Your task to perform on an android device: manage bookmarks in the chrome app Image 0: 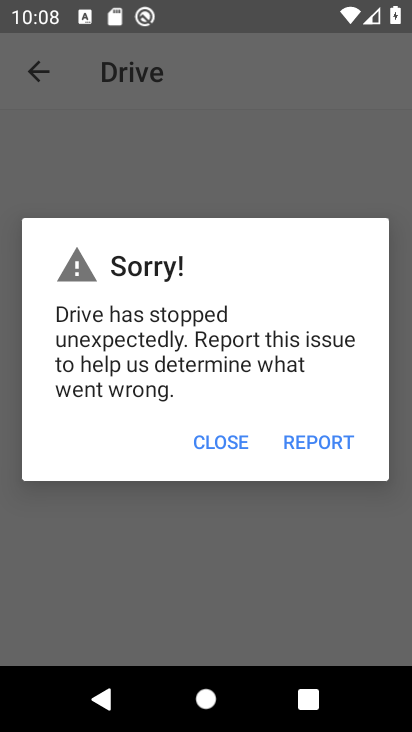
Step 0: press home button
Your task to perform on an android device: manage bookmarks in the chrome app Image 1: 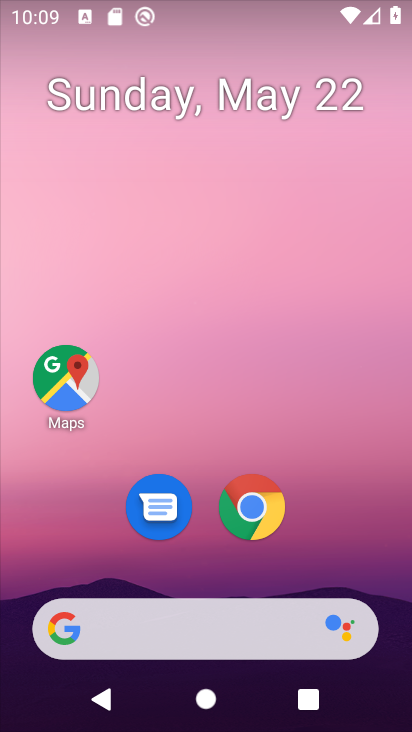
Step 1: click (265, 496)
Your task to perform on an android device: manage bookmarks in the chrome app Image 2: 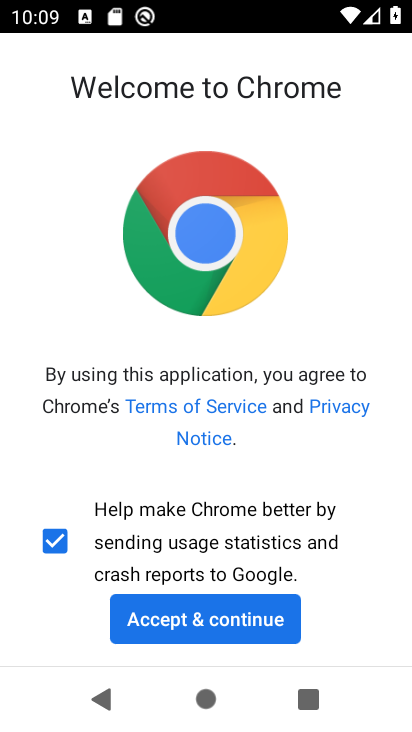
Step 2: click (160, 614)
Your task to perform on an android device: manage bookmarks in the chrome app Image 3: 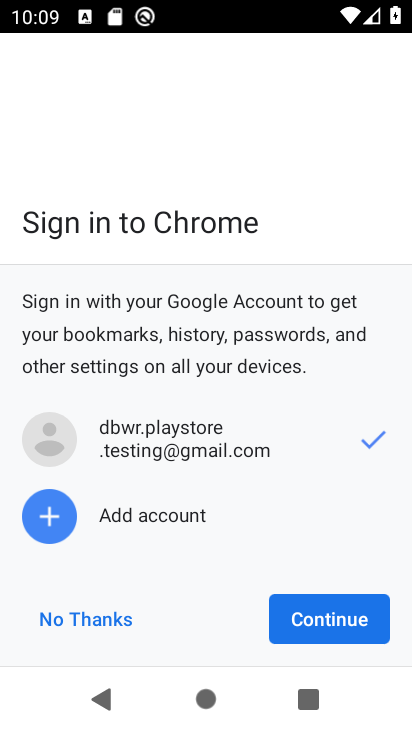
Step 3: click (327, 636)
Your task to perform on an android device: manage bookmarks in the chrome app Image 4: 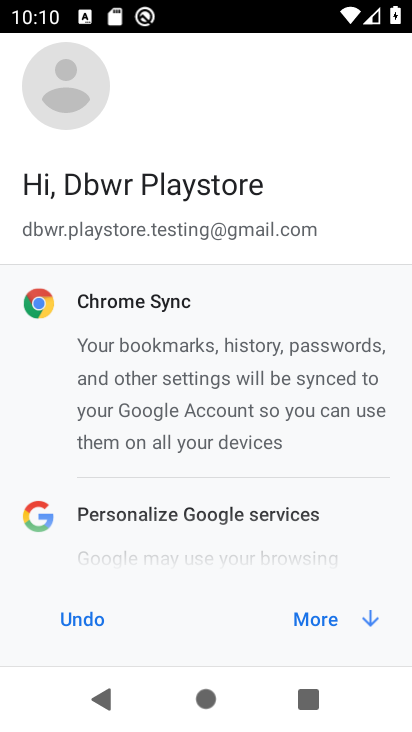
Step 4: click (319, 621)
Your task to perform on an android device: manage bookmarks in the chrome app Image 5: 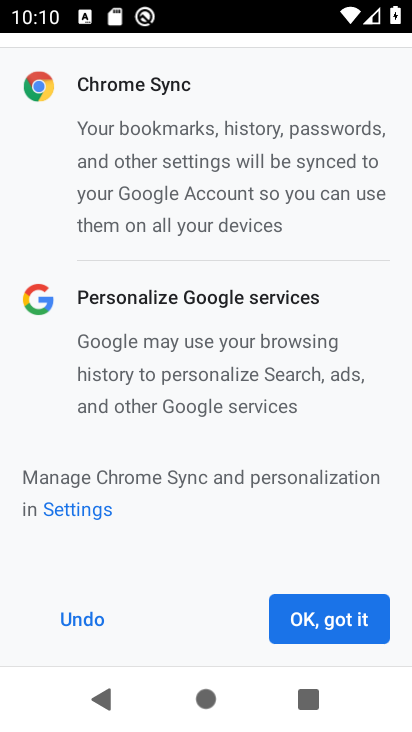
Step 5: click (319, 621)
Your task to perform on an android device: manage bookmarks in the chrome app Image 6: 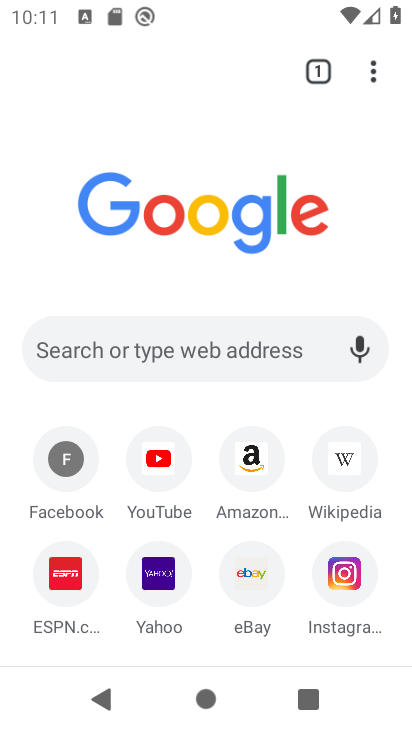
Step 6: click (365, 62)
Your task to perform on an android device: manage bookmarks in the chrome app Image 7: 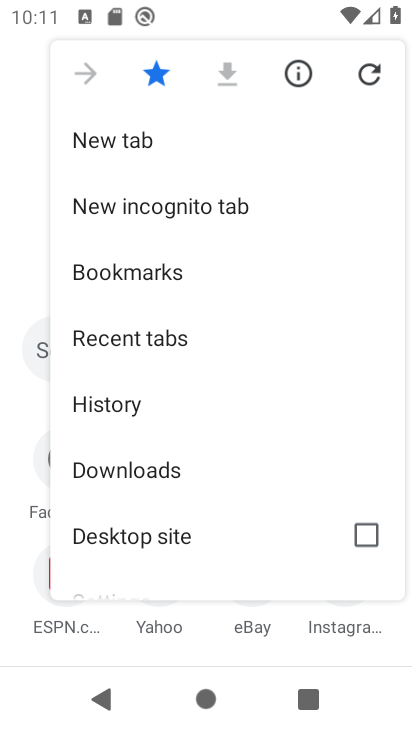
Step 7: click (185, 286)
Your task to perform on an android device: manage bookmarks in the chrome app Image 8: 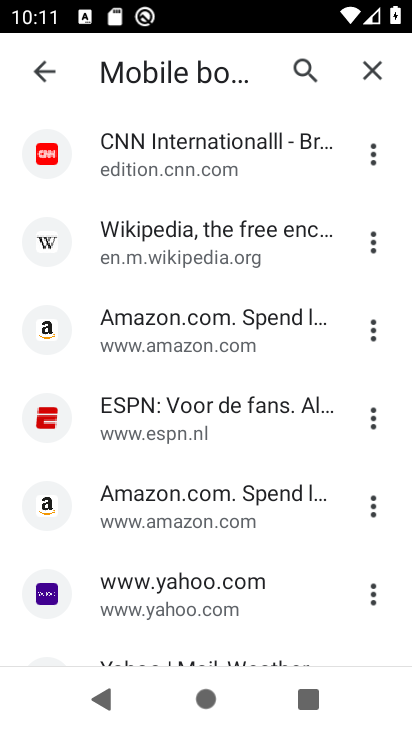
Step 8: click (369, 512)
Your task to perform on an android device: manage bookmarks in the chrome app Image 9: 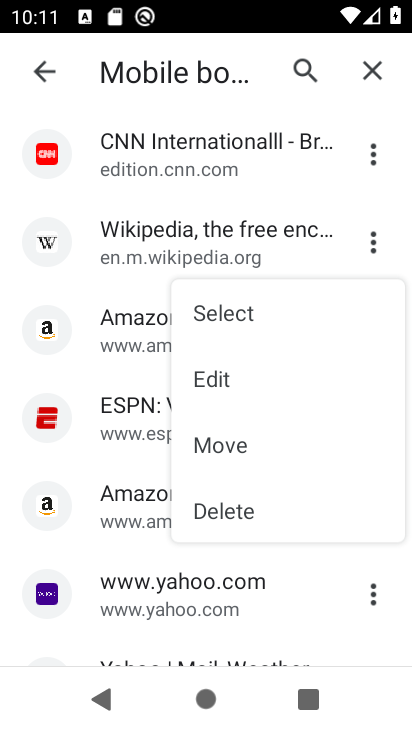
Step 9: click (245, 505)
Your task to perform on an android device: manage bookmarks in the chrome app Image 10: 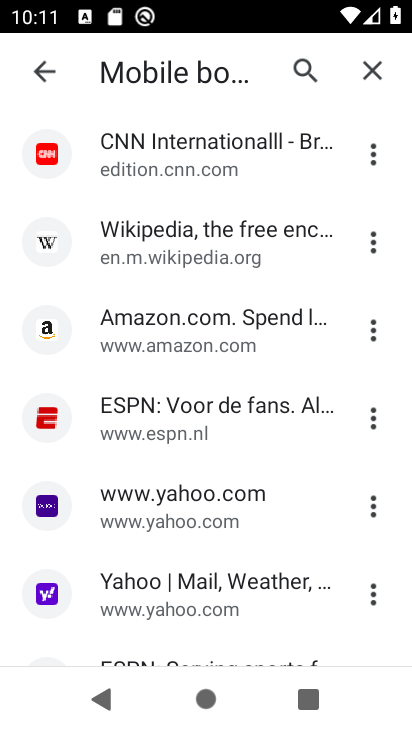
Step 10: task complete